Your task to perform on an android device: all mails in gmail Image 0: 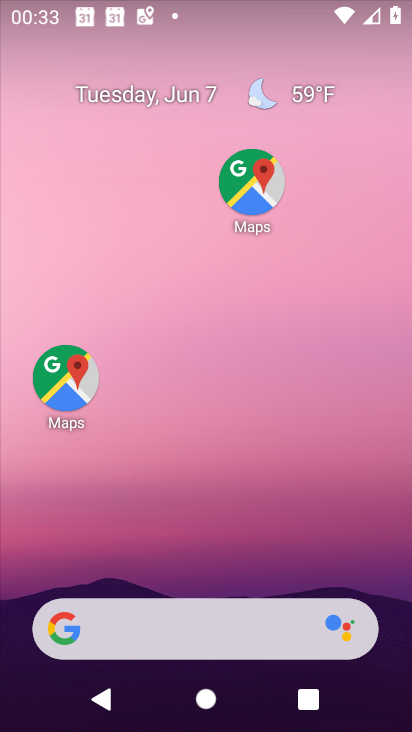
Step 0: drag from (244, 566) to (212, 56)
Your task to perform on an android device: all mails in gmail Image 1: 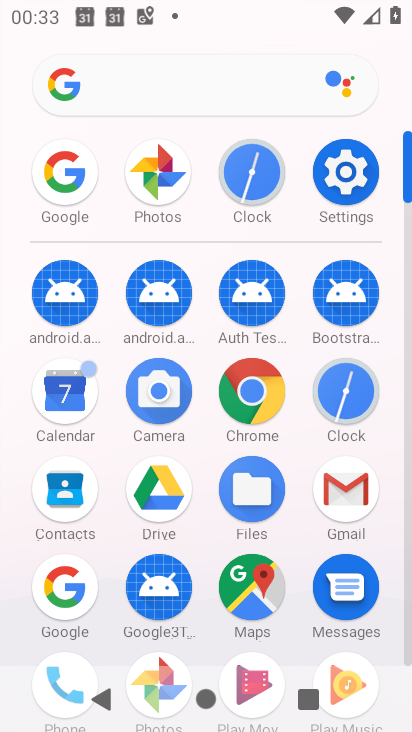
Step 1: click (342, 485)
Your task to perform on an android device: all mails in gmail Image 2: 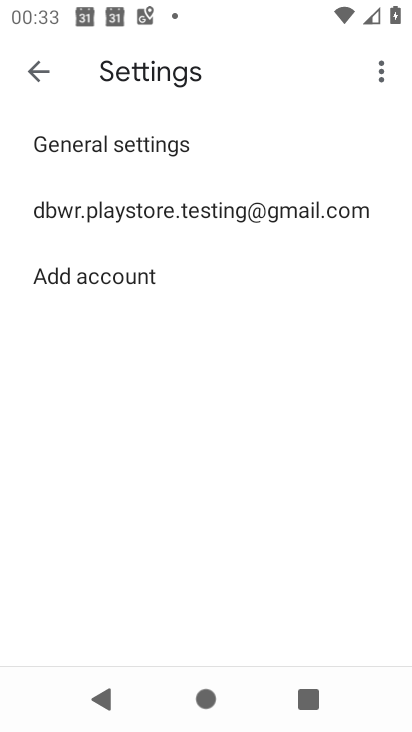
Step 2: press back button
Your task to perform on an android device: all mails in gmail Image 3: 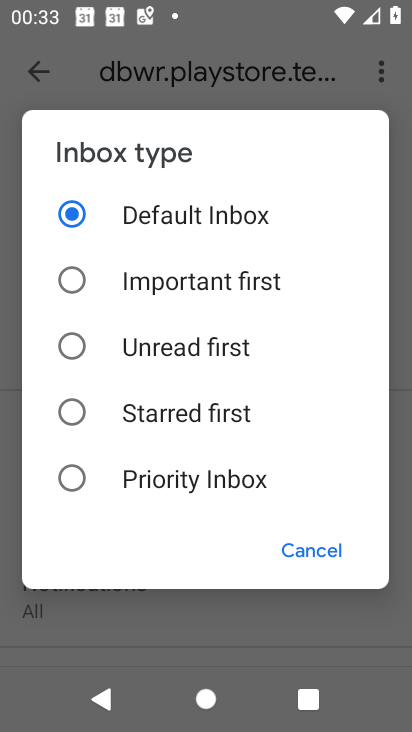
Step 3: press back button
Your task to perform on an android device: all mails in gmail Image 4: 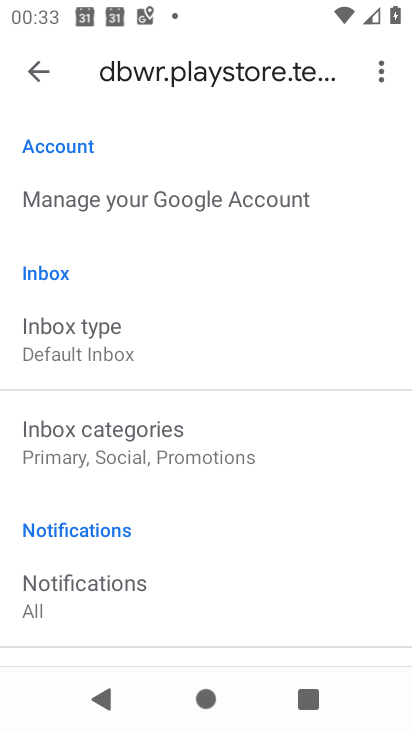
Step 4: press back button
Your task to perform on an android device: all mails in gmail Image 5: 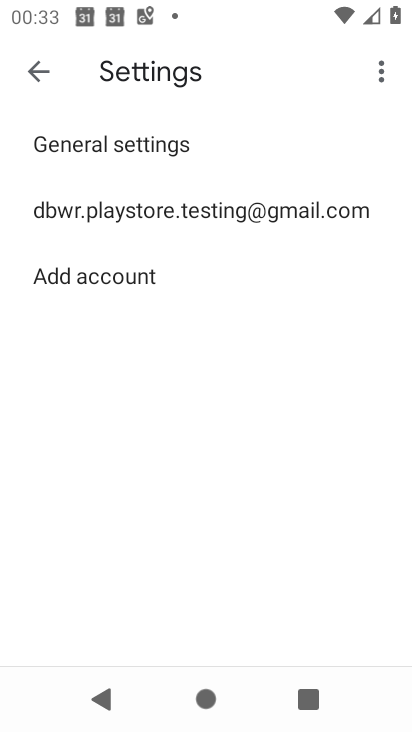
Step 5: press back button
Your task to perform on an android device: all mails in gmail Image 6: 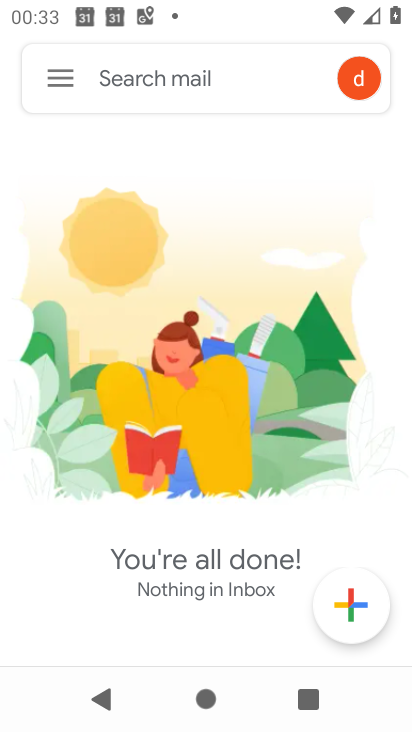
Step 6: click (73, 78)
Your task to perform on an android device: all mails in gmail Image 7: 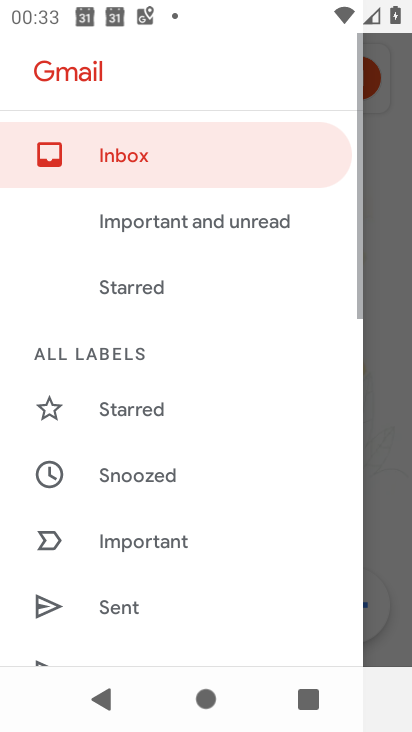
Step 7: drag from (171, 564) to (226, 78)
Your task to perform on an android device: all mails in gmail Image 8: 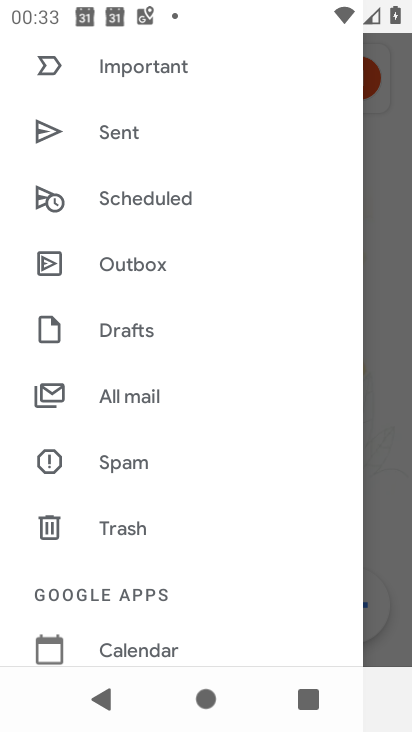
Step 8: click (135, 400)
Your task to perform on an android device: all mails in gmail Image 9: 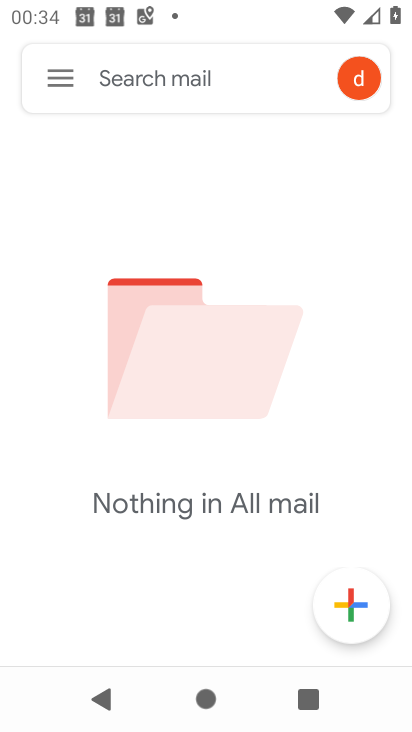
Step 9: task complete